Your task to perform on an android device: snooze an email in the gmail app Image 0: 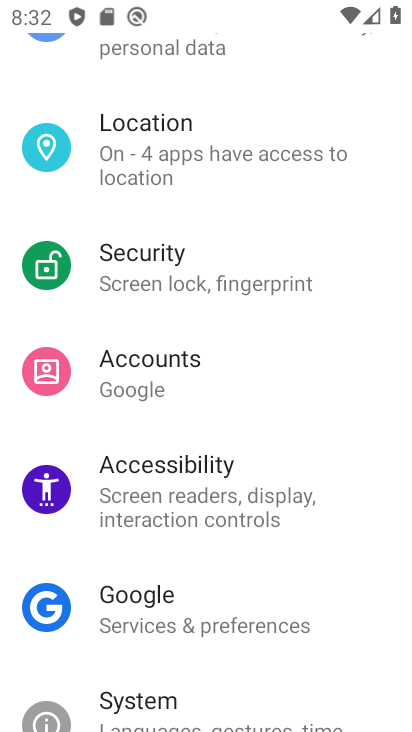
Step 0: press home button
Your task to perform on an android device: snooze an email in the gmail app Image 1: 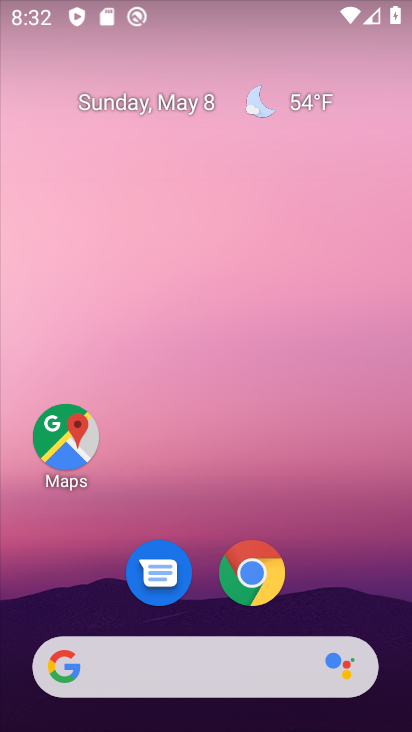
Step 1: drag from (225, 700) to (207, 245)
Your task to perform on an android device: snooze an email in the gmail app Image 2: 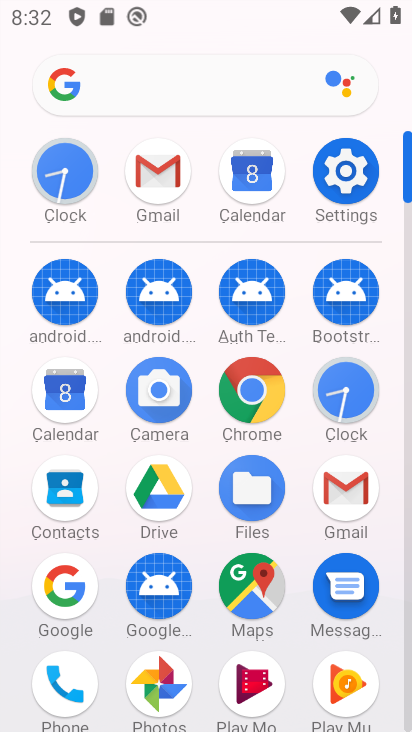
Step 2: click (346, 494)
Your task to perform on an android device: snooze an email in the gmail app Image 3: 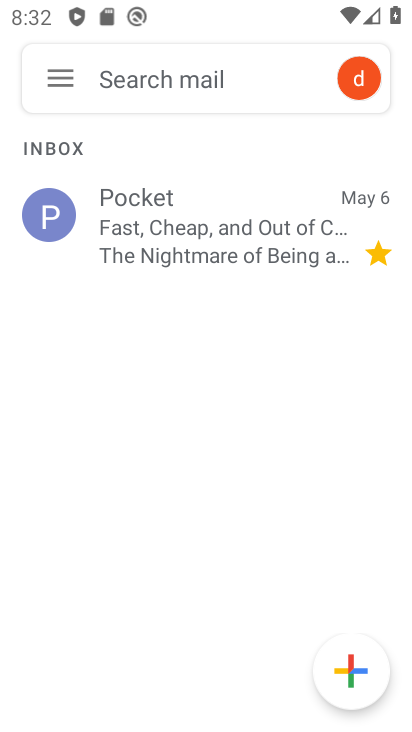
Step 3: click (254, 259)
Your task to perform on an android device: snooze an email in the gmail app Image 4: 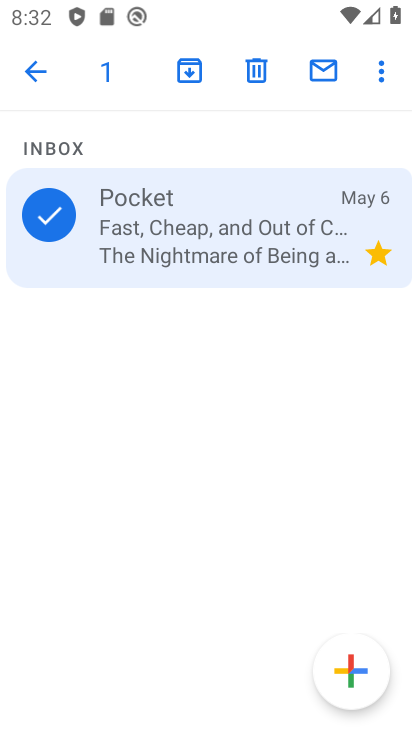
Step 4: click (380, 65)
Your task to perform on an android device: snooze an email in the gmail app Image 5: 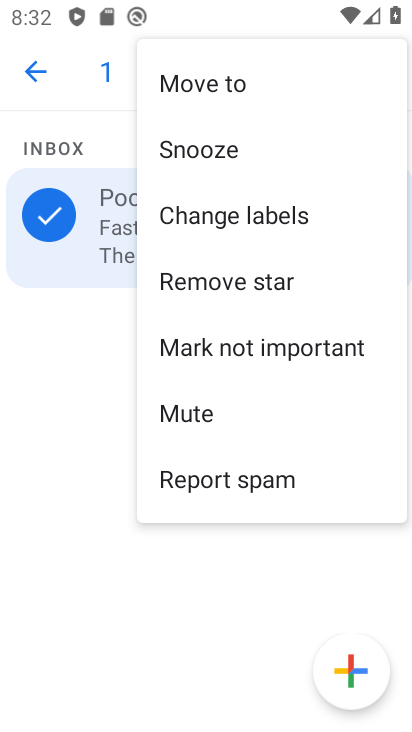
Step 5: click (198, 143)
Your task to perform on an android device: snooze an email in the gmail app Image 6: 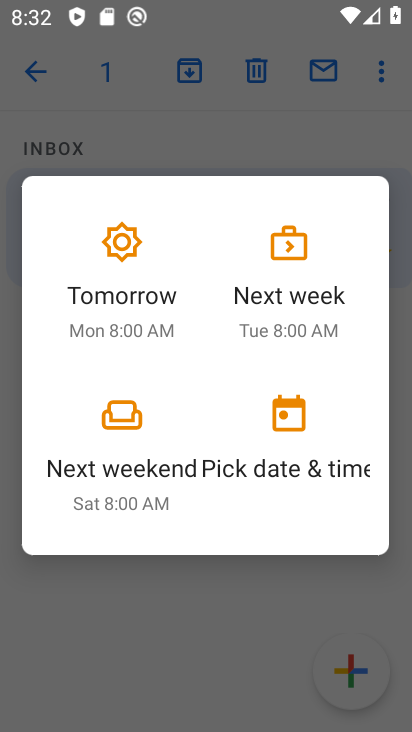
Step 6: click (107, 260)
Your task to perform on an android device: snooze an email in the gmail app Image 7: 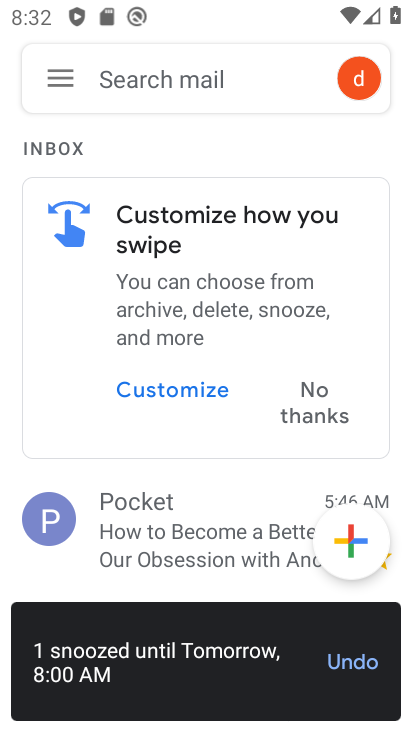
Step 7: task complete